Your task to perform on an android device: Go to battery settings Image 0: 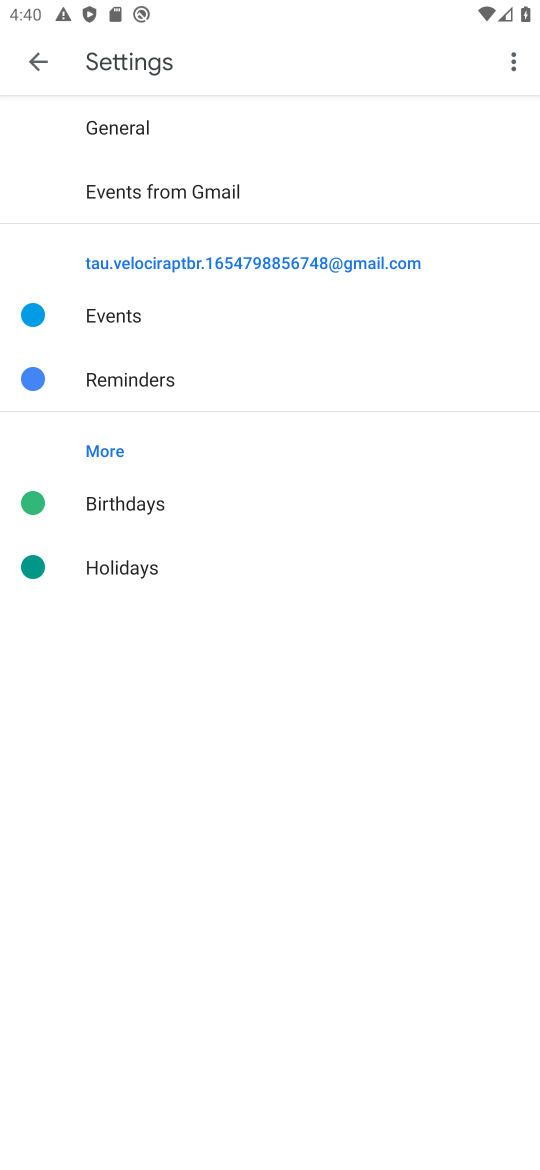
Step 0: press home button
Your task to perform on an android device: Go to battery settings Image 1: 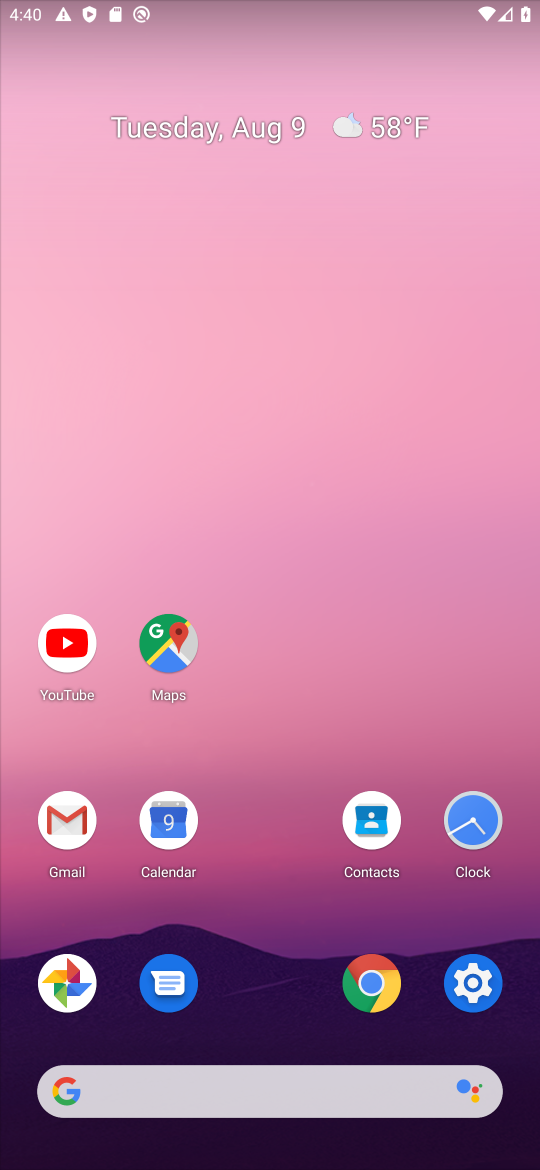
Step 1: click (473, 982)
Your task to perform on an android device: Go to battery settings Image 2: 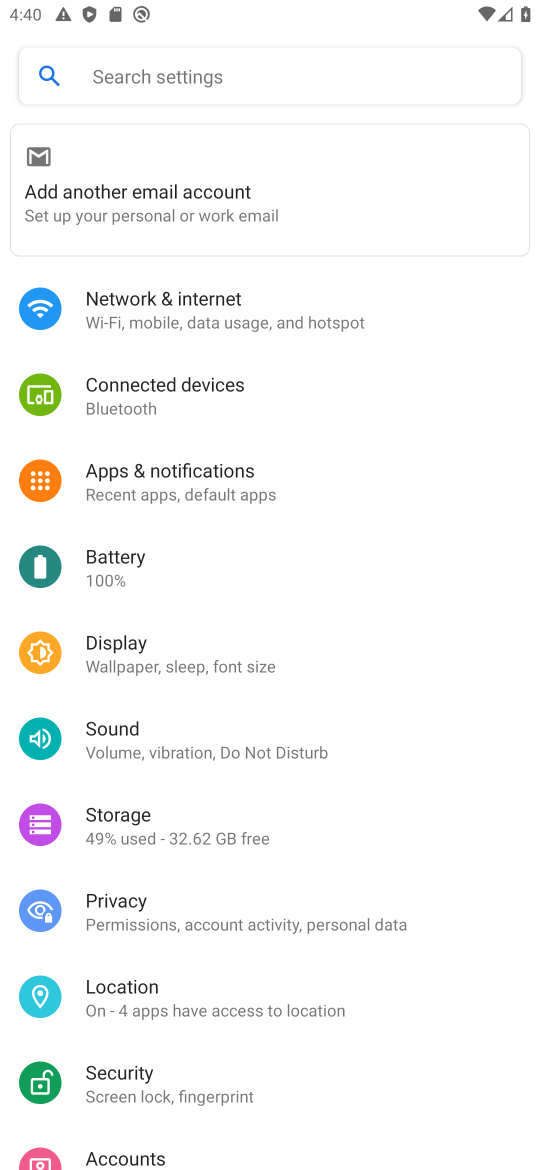
Step 2: click (118, 551)
Your task to perform on an android device: Go to battery settings Image 3: 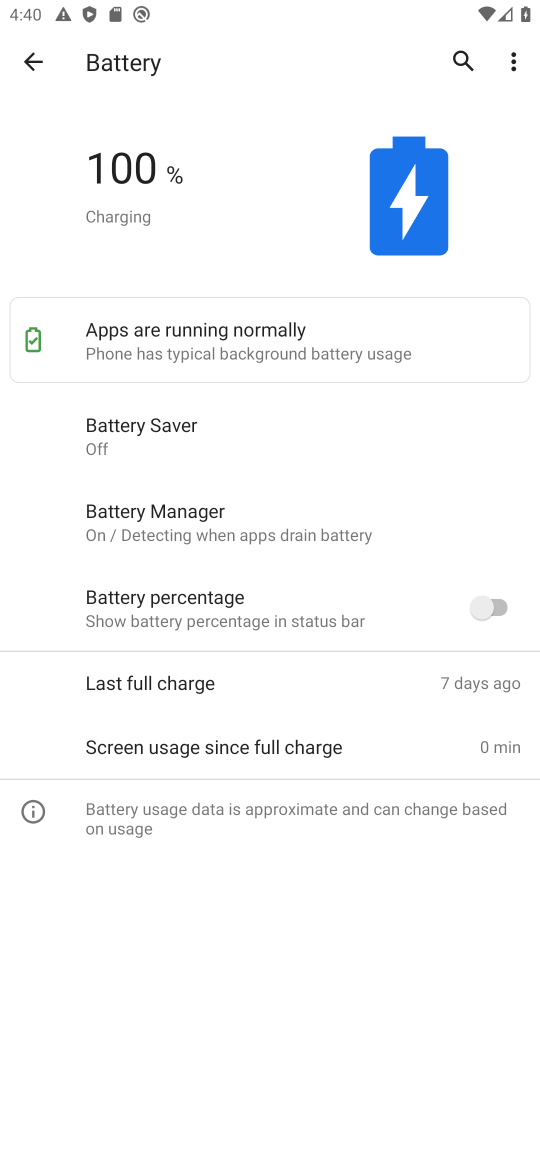
Step 3: task complete